Your task to perform on an android device: Open battery settings Image 0: 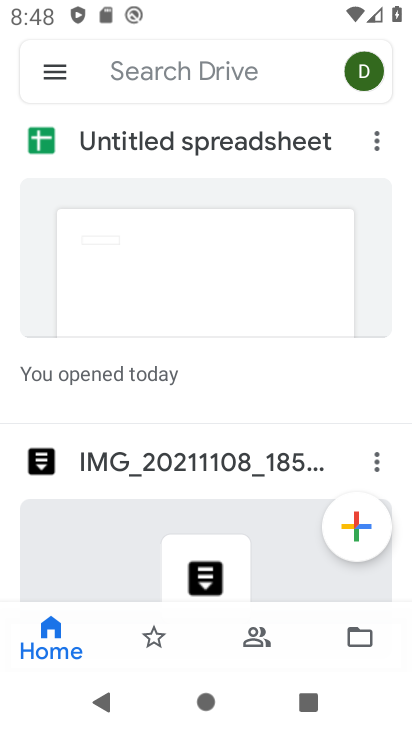
Step 0: press back button
Your task to perform on an android device: Open battery settings Image 1: 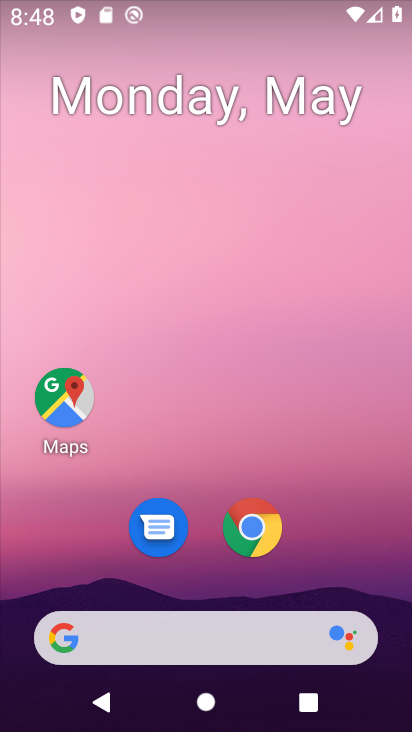
Step 1: drag from (317, 548) to (276, 37)
Your task to perform on an android device: Open battery settings Image 2: 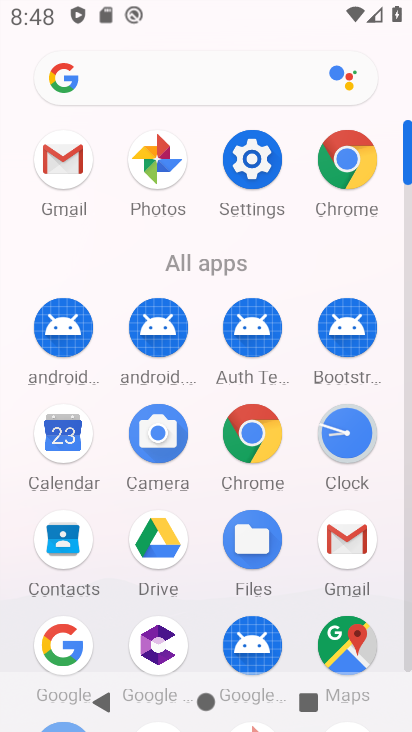
Step 2: drag from (13, 542) to (10, 259)
Your task to perform on an android device: Open battery settings Image 3: 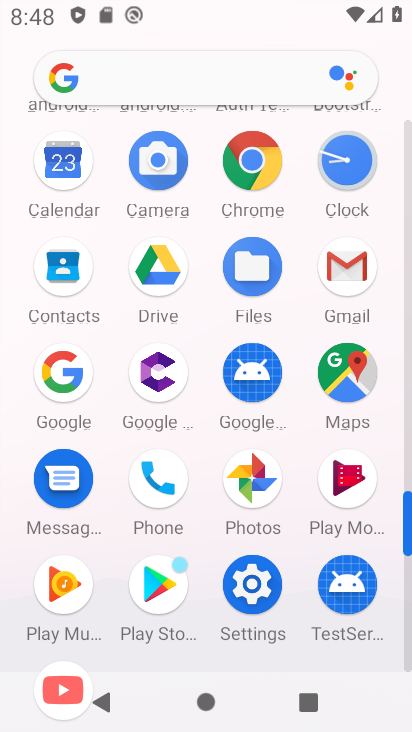
Step 3: click (251, 581)
Your task to perform on an android device: Open battery settings Image 4: 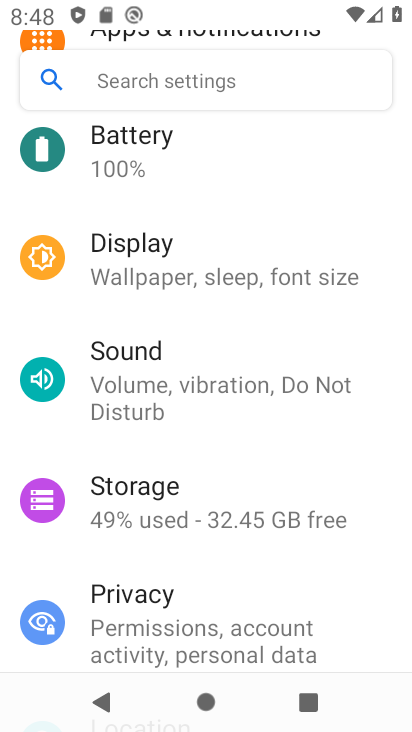
Step 4: drag from (247, 221) to (245, 570)
Your task to perform on an android device: Open battery settings Image 5: 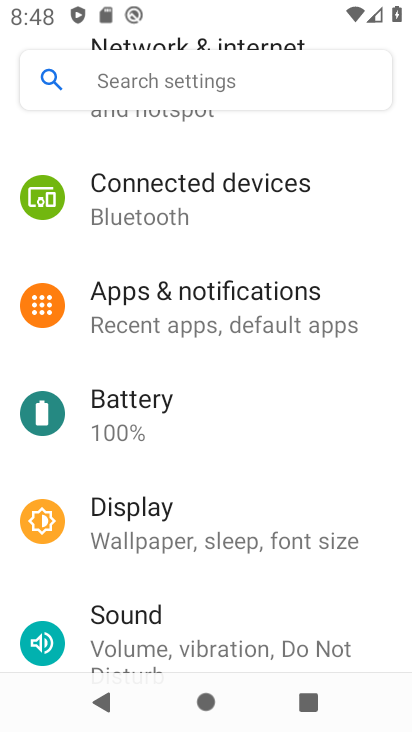
Step 5: click (142, 423)
Your task to perform on an android device: Open battery settings Image 6: 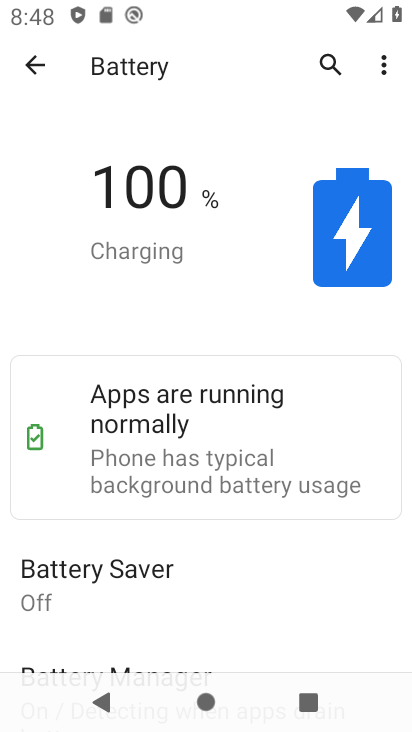
Step 6: task complete